Your task to perform on an android device: turn on translation in the chrome app Image 0: 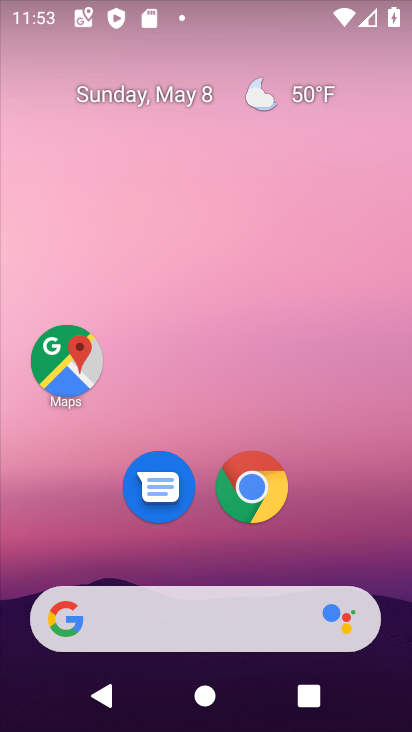
Step 0: click (249, 486)
Your task to perform on an android device: turn on translation in the chrome app Image 1: 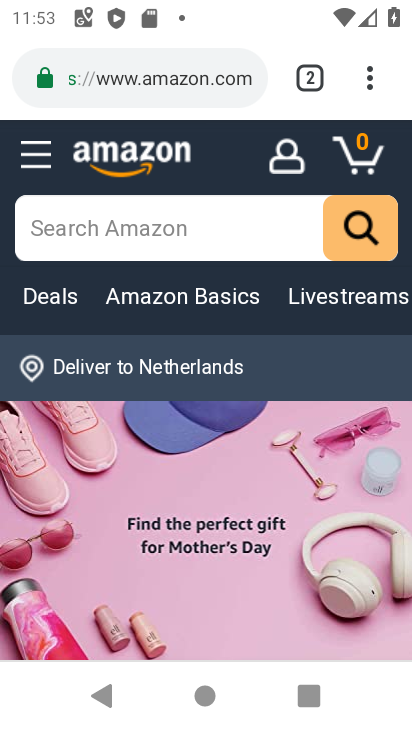
Step 1: drag from (369, 76) to (152, 547)
Your task to perform on an android device: turn on translation in the chrome app Image 2: 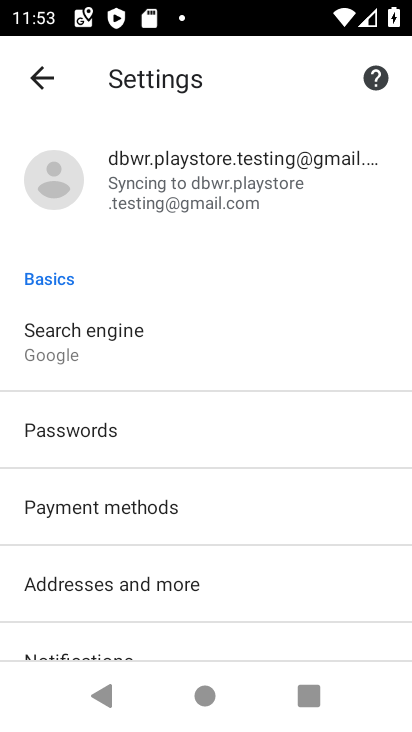
Step 2: drag from (155, 573) to (163, 267)
Your task to perform on an android device: turn on translation in the chrome app Image 3: 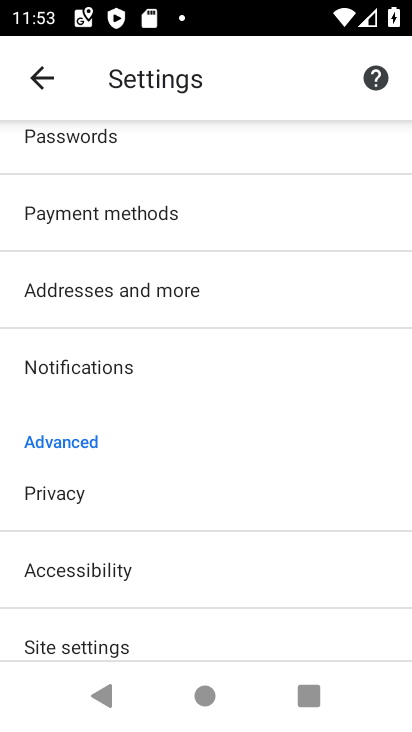
Step 3: drag from (161, 628) to (150, 346)
Your task to perform on an android device: turn on translation in the chrome app Image 4: 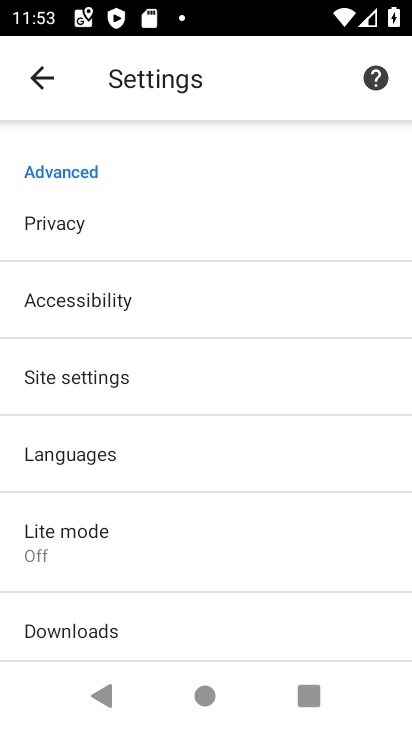
Step 4: click (115, 451)
Your task to perform on an android device: turn on translation in the chrome app Image 5: 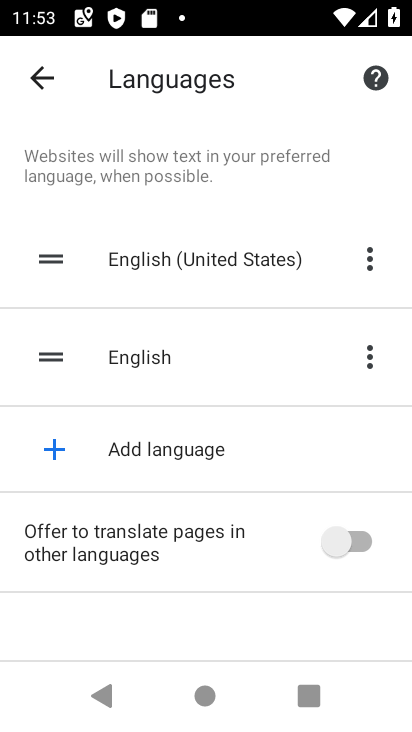
Step 5: click (344, 527)
Your task to perform on an android device: turn on translation in the chrome app Image 6: 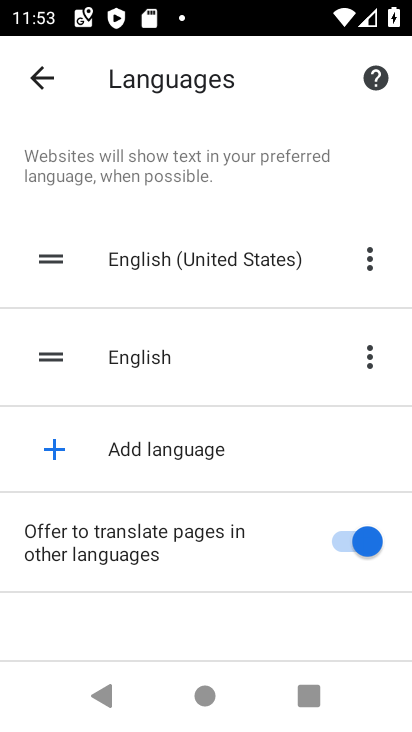
Step 6: task complete